Your task to perform on an android device: turn off smart reply in the gmail app Image 0: 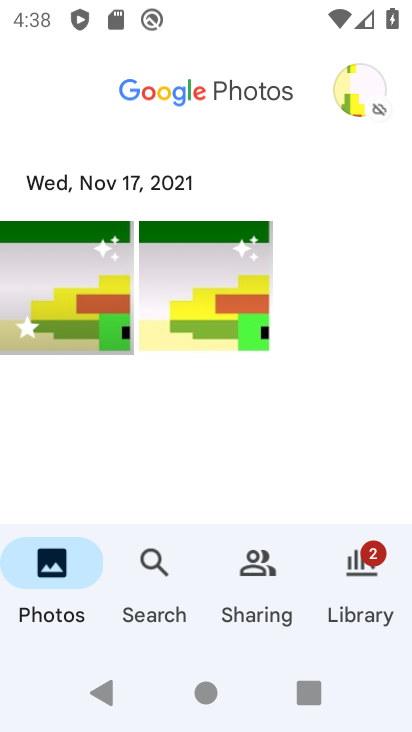
Step 0: press back button
Your task to perform on an android device: turn off smart reply in the gmail app Image 1: 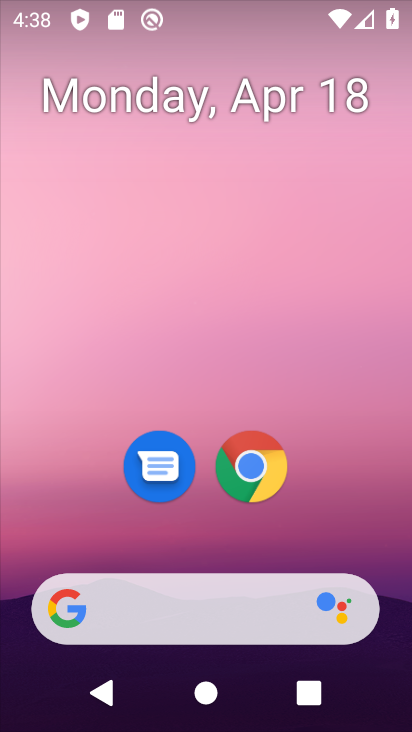
Step 1: drag from (318, 469) to (57, 6)
Your task to perform on an android device: turn off smart reply in the gmail app Image 2: 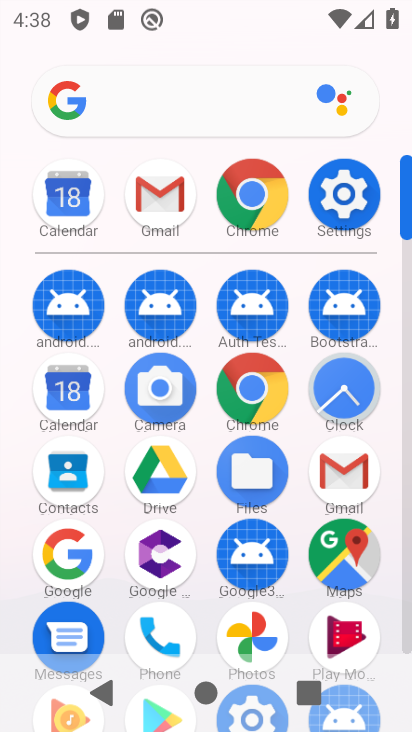
Step 2: drag from (0, 501) to (14, 229)
Your task to perform on an android device: turn off smart reply in the gmail app Image 3: 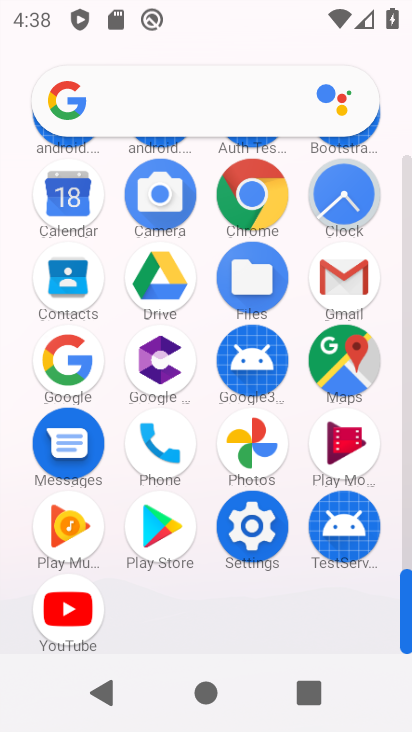
Step 3: click (341, 274)
Your task to perform on an android device: turn off smart reply in the gmail app Image 4: 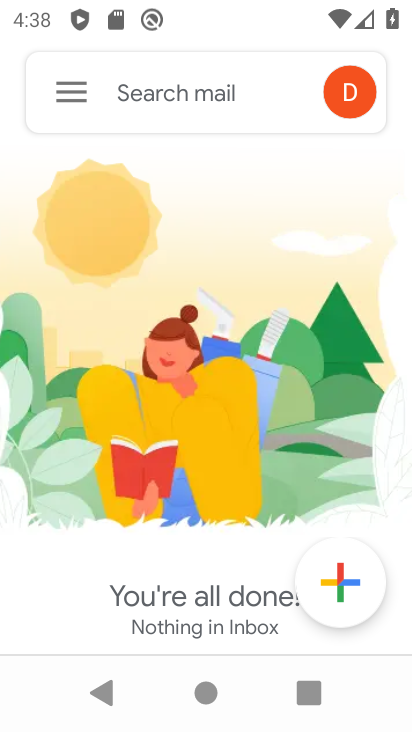
Step 4: click (60, 82)
Your task to perform on an android device: turn off smart reply in the gmail app Image 5: 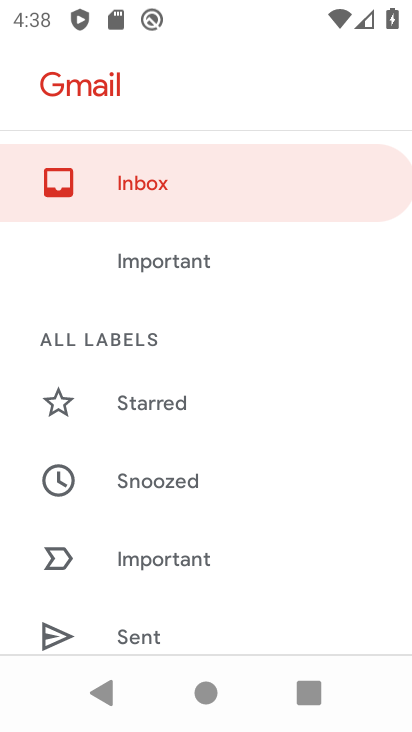
Step 5: drag from (249, 475) to (284, 145)
Your task to perform on an android device: turn off smart reply in the gmail app Image 6: 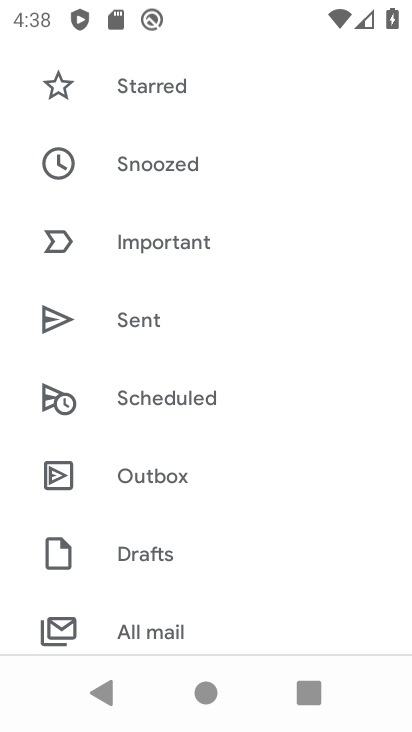
Step 6: drag from (268, 431) to (274, 52)
Your task to perform on an android device: turn off smart reply in the gmail app Image 7: 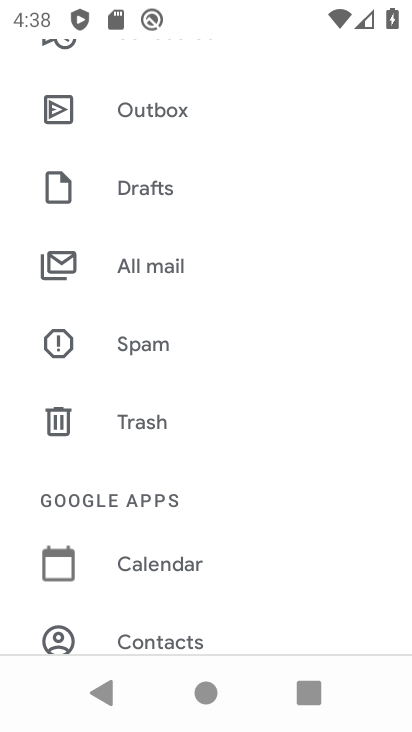
Step 7: drag from (221, 404) to (221, 51)
Your task to perform on an android device: turn off smart reply in the gmail app Image 8: 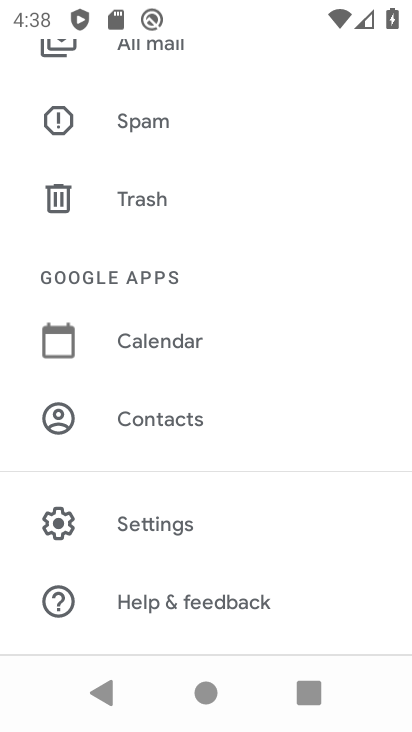
Step 8: drag from (213, 447) to (227, 122)
Your task to perform on an android device: turn off smart reply in the gmail app Image 9: 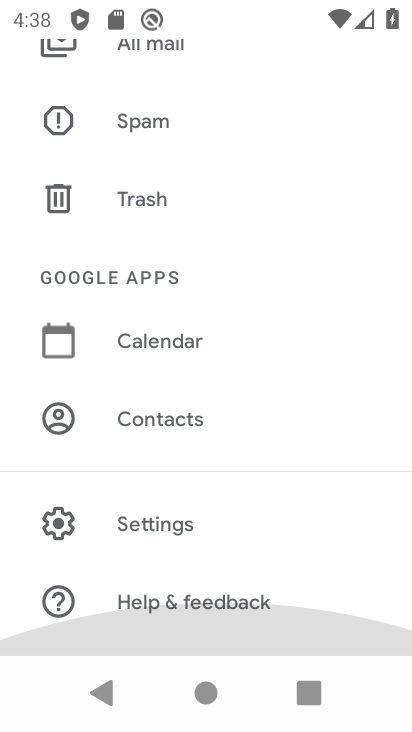
Step 9: click (194, 520)
Your task to perform on an android device: turn off smart reply in the gmail app Image 10: 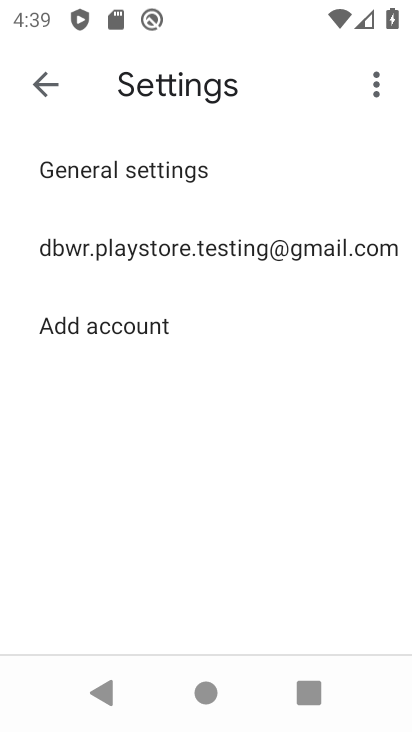
Step 10: click (171, 242)
Your task to perform on an android device: turn off smart reply in the gmail app Image 11: 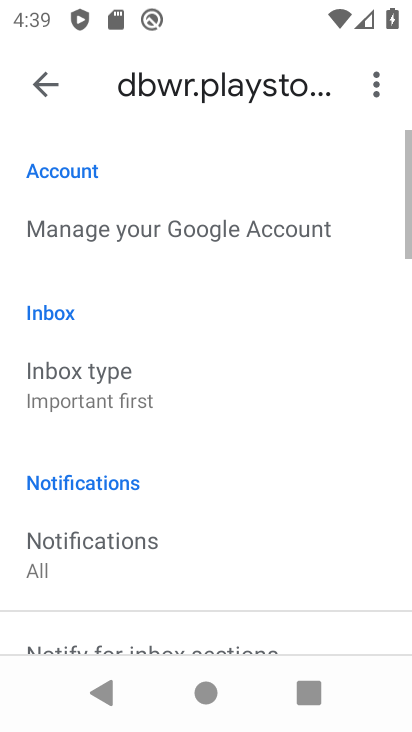
Step 11: drag from (202, 468) to (212, 137)
Your task to perform on an android device: turn off smart reply in the gmail app Image 12: 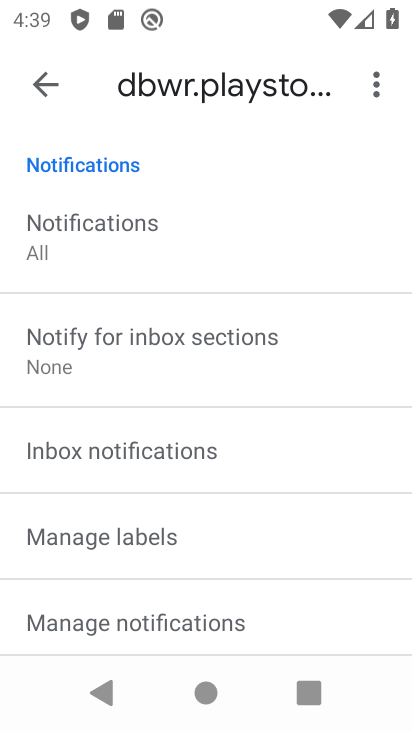
Step 12: drag from (216, 453) to (235, 171)
Your task to perform on an android device: turn off smart reply in the gmail app Image 13: 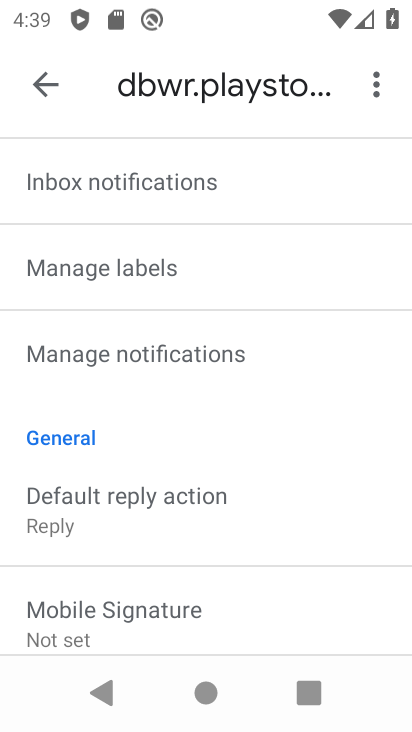
Step 13: drag from (223, 449) to (239, 168)
Your task to perform on an android device: turn off smart reply in the gmail app Image 14: 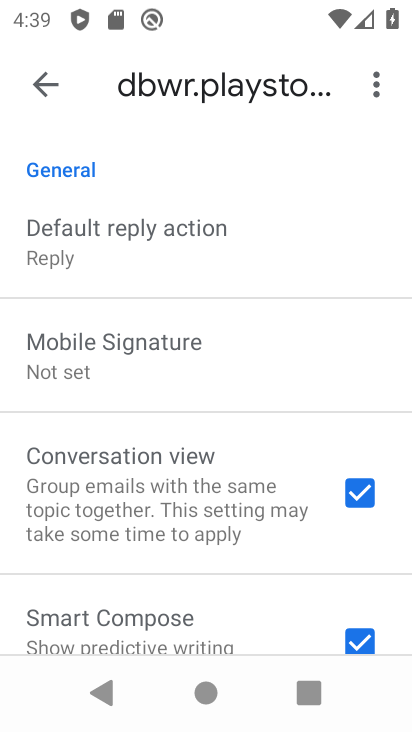
Step 14: drag from (230, 177) to (155, 563)
Your task to perform on an android device: turn off smart reply in the gmail app Image 15: 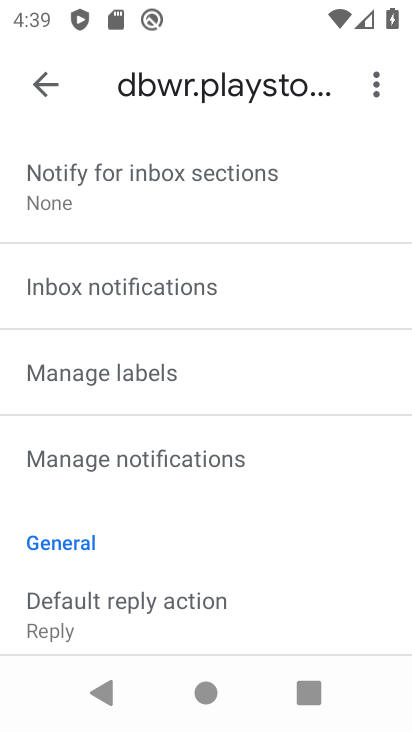
Step 15: drag from (238, 295) to (224, 516)
Your task to perform on an android device: turn off smart reply in the gmail app Image 16: 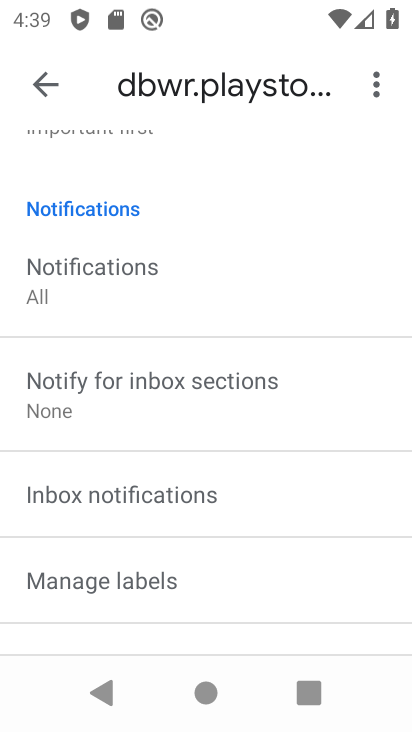
Step 16: drag from (246, 288) to (237, 514)
Your task to perform on an android device: turn off smart reply in the gmail app Image 17: 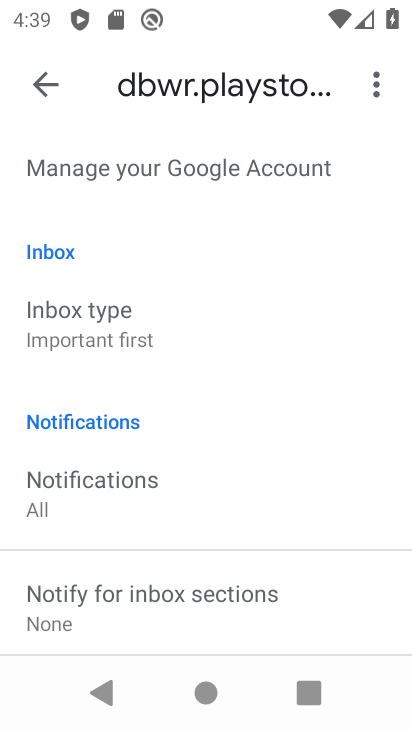
Step 17: drag from (251, 300) to (239, 141)
Your task to perform on an android device: turn off smart reply in the gmail app Image 18: 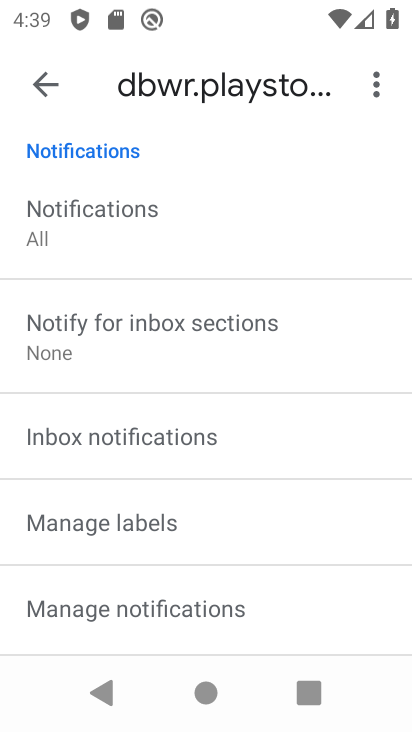
Step 18: drag from (207, 514) to (247, 198)
Your task to perform on an android device: turn off smart reply in the gmail app Image 19: 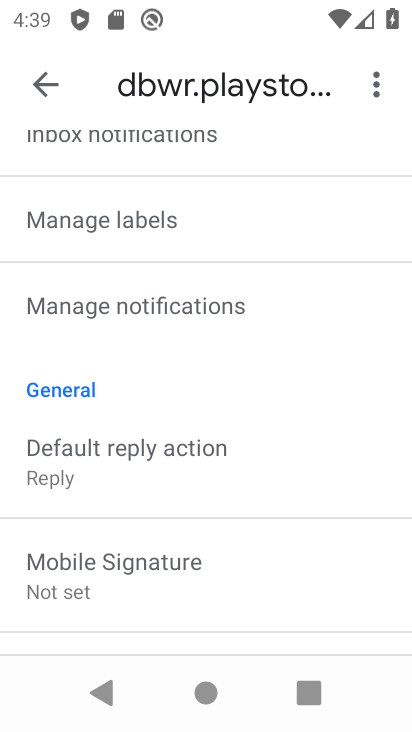
Step 19: drag from (209, 387) to (217, 215)
Your task to perform on an android device: turn off smart reply in the gmail app Image 20: 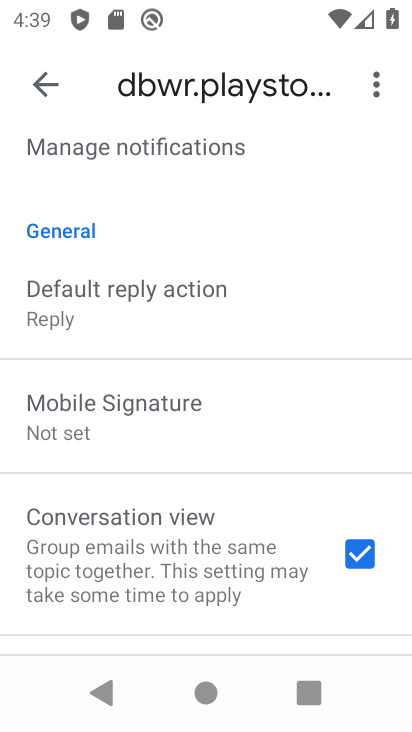
Step 20: drag from (196, 523) to (225, 169)
Your task to perform on an android device: turn off smart reply in the gmail app Image 21: 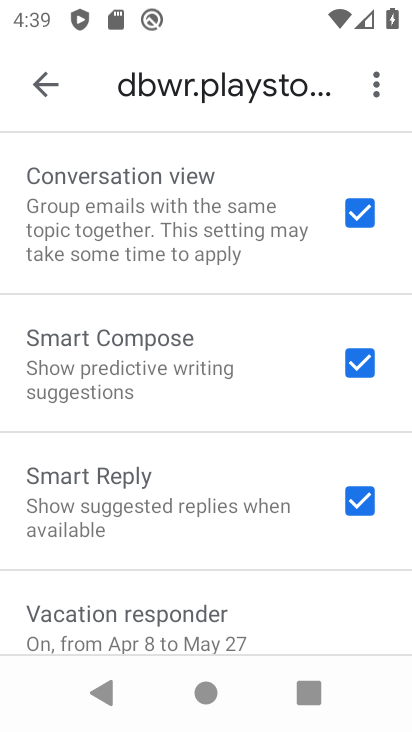
Step 21: click (357, 497)
Your task to perform on an android device: turn off smart reply in the gmail app Image 22: 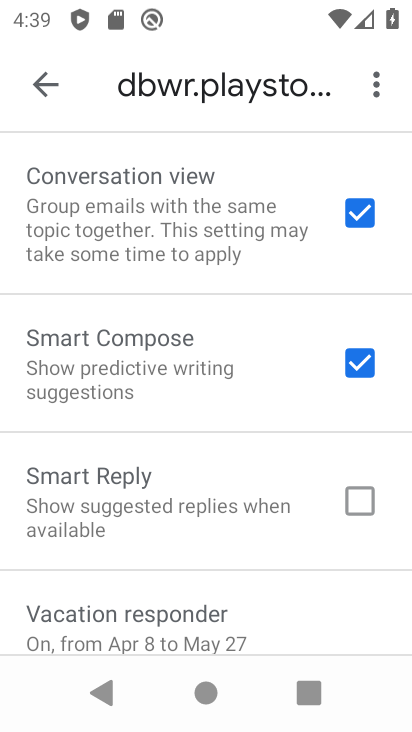
Step 22: task complete